Your task to perform on an android device: turn off notifications in google photos Image 0: 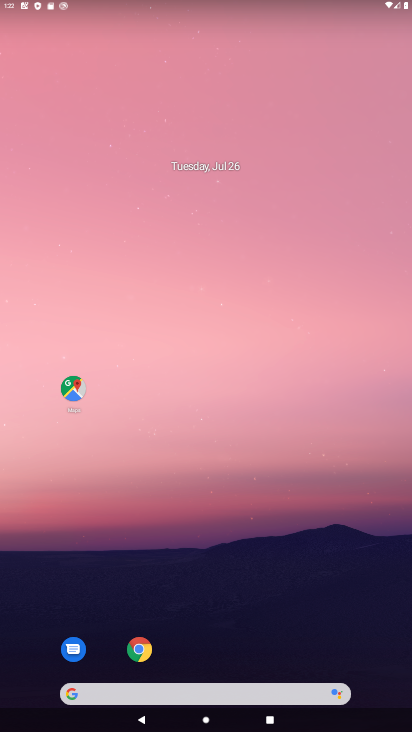
Step 0: drag from (210, 652) to (206, 137)
Your task to perform on an android device: turn off notifications in google photos Image 1: 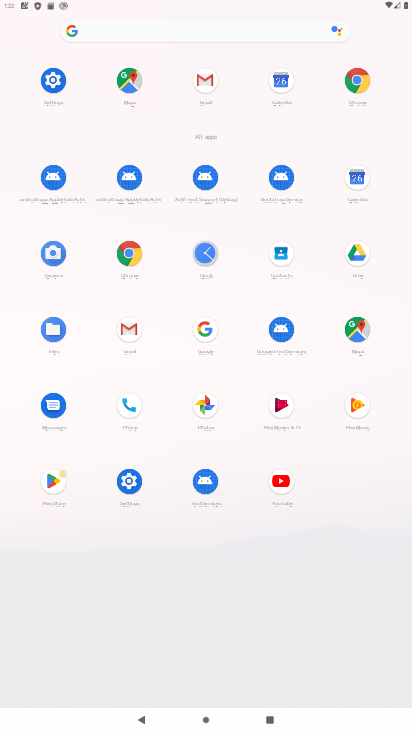
Step 1: click (204, 409)
Your task to perform on an android device: turn off notifications in google photos Image 2: 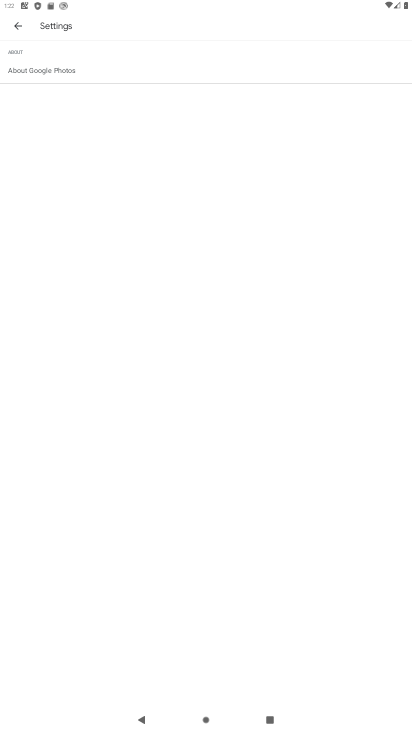
Step 2: click (13, 20)
Your task to perform on an android device: turn off notifications in google photos Image 3: 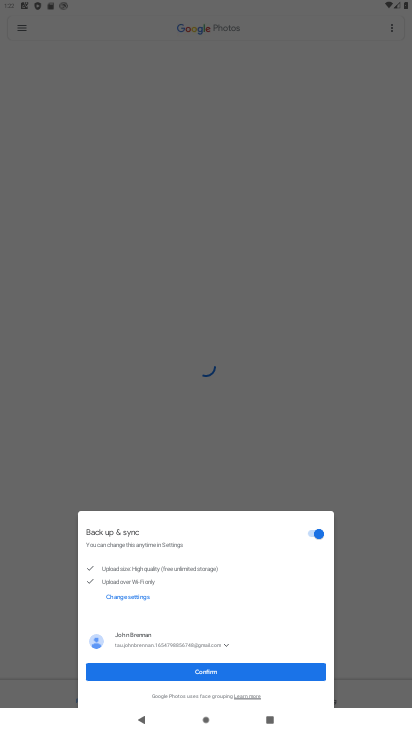
Step 3: click (227, 672)
Your task to perform on an android device: turn off notifications in google photos Image 4: 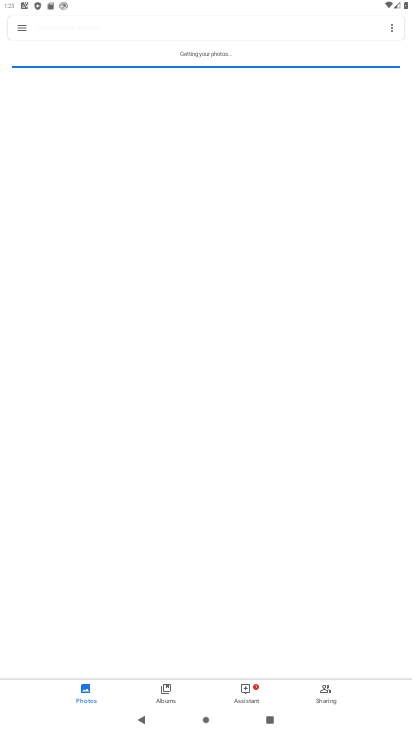
Step 4: click (19, 25)
Your task to perform on an android device: turn off notifications in google photos Image 5: 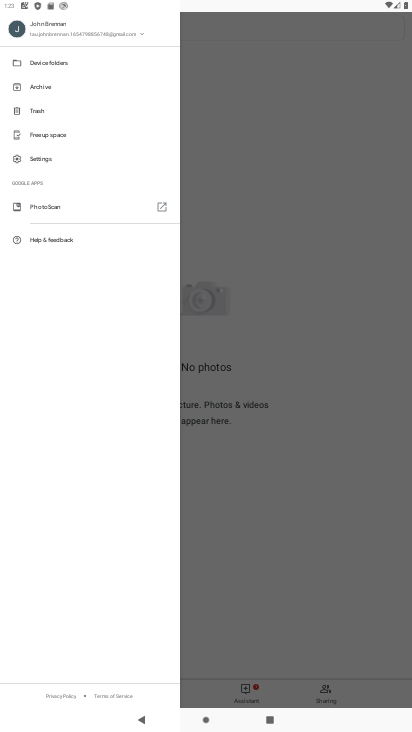
Step 5: click (44, 155)
Your task to perform on an android device: turn off notifications in google photos Image 6: 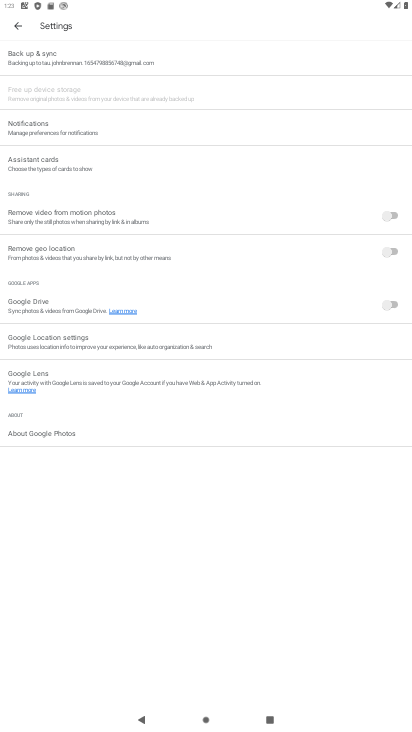
Step 6: click (54, 131)
Your task to perform on an android device: turn off notifications in google photos Image 7: 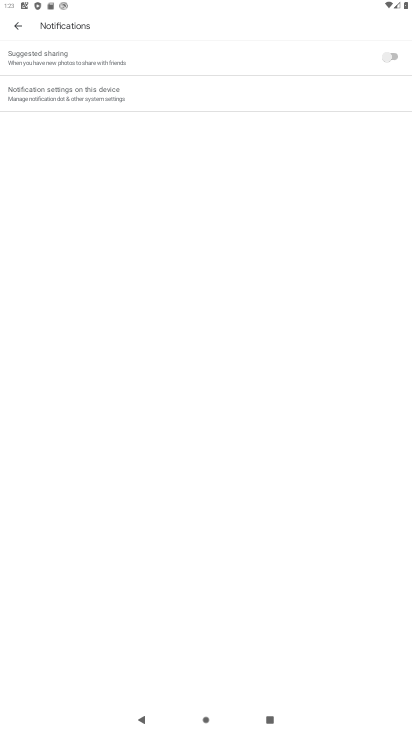
Step 7: click (76, 93)
Your task to perform on an android device: turn off notifications in google photos Image 8: 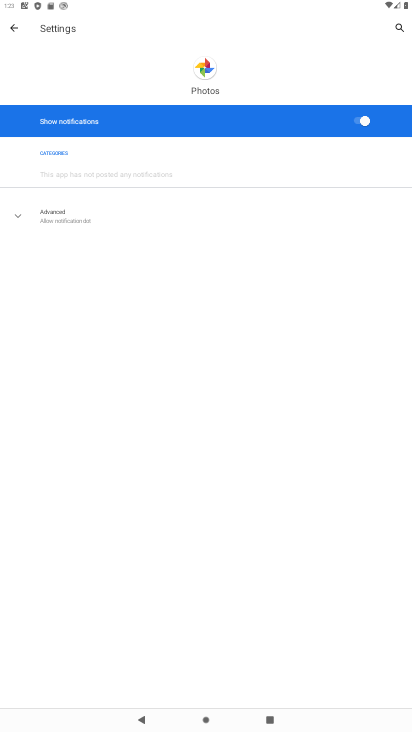
Step 8: click (360, 117)
Your task to perform on an android device: turn off notifications in google photos Image 9: 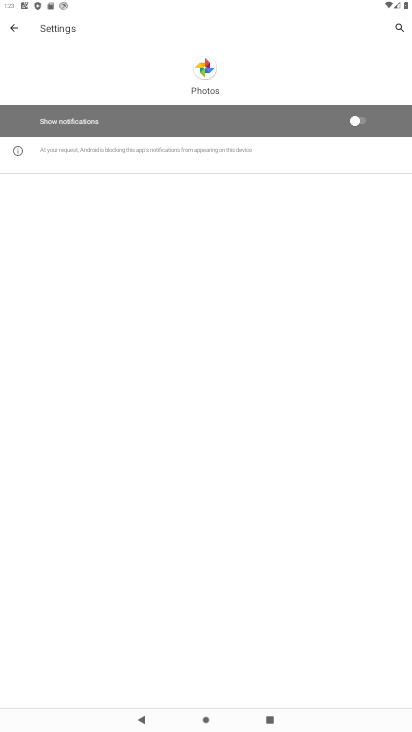
Step 9: task complete